Your task to perform on an android device: Show me recent news Image 0: 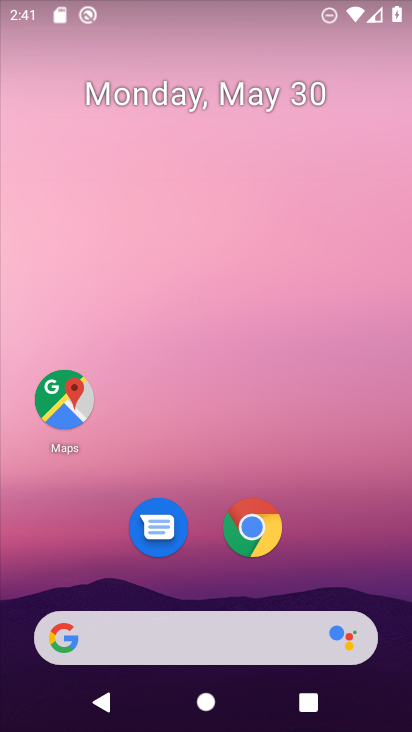
Step 0: drag from (153, 305) to (408, 633)
Your task to perform on an android device: Show me recent news Image 1: 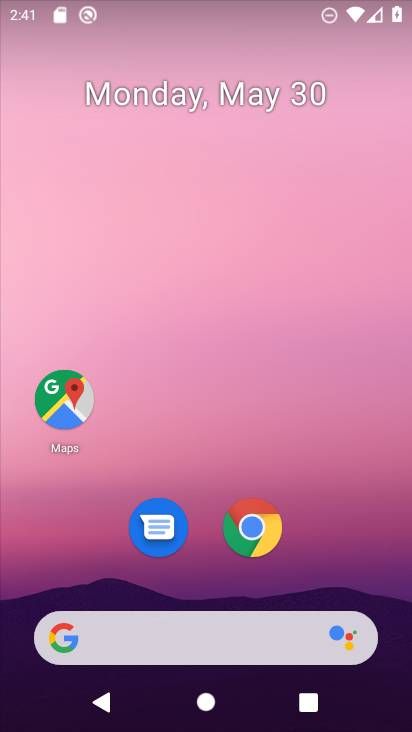
Step 1: task complete